Your task to perform on an android device: set the timer Image 0: 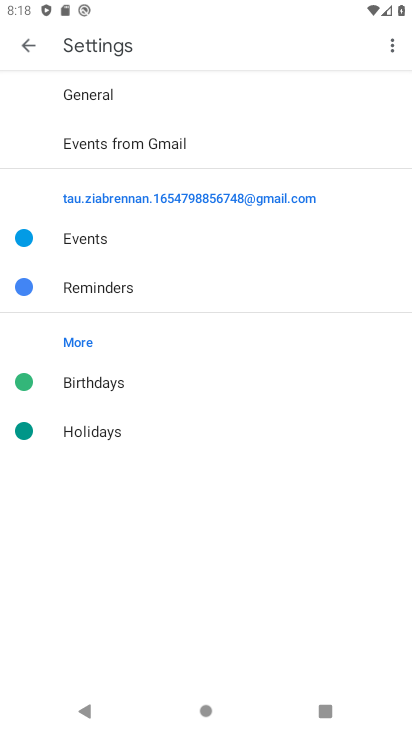
Step 0: press home button
Your task to perform on an android device: set the timer Image 1: 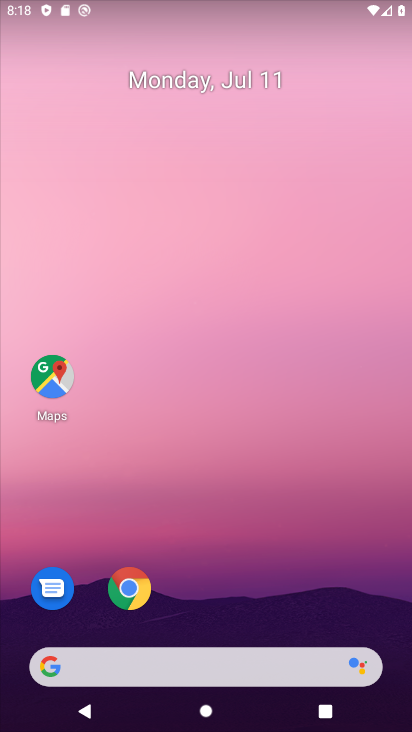
Step 1: drag from (263, 692) to (403, 119)
Your task to perform on an android device: set the timer Image 2: 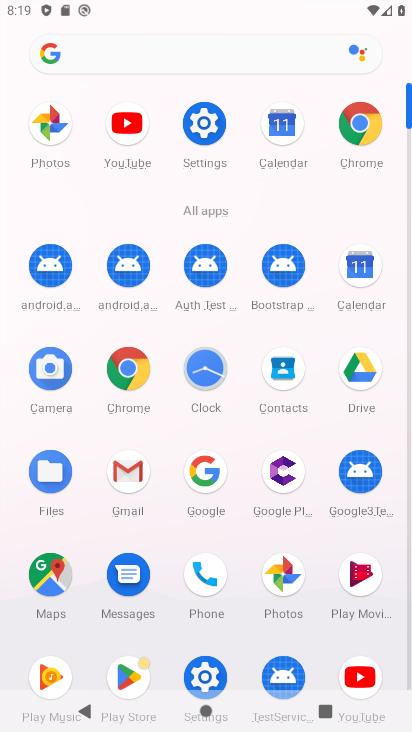
Step 2: click (207, 372)
Your task to perform on an android device: set the timer Image 3: 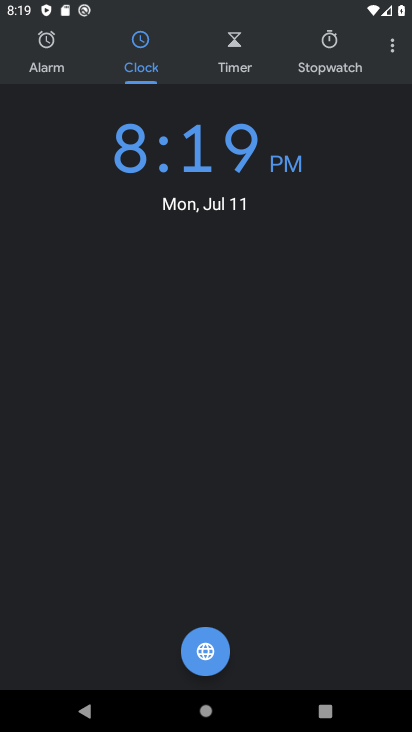
Step 3: click (234, 56)
Your task to perform on an android device: set the timer Image 4: 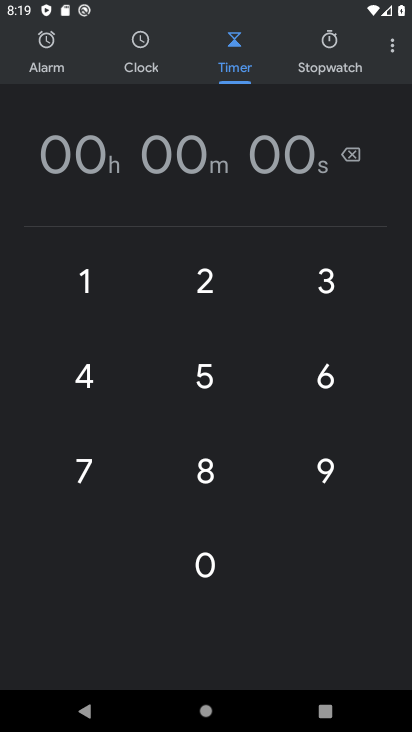
Step 4: click (204, 380)
Your task to perform on an android device: set the timer Image 5: 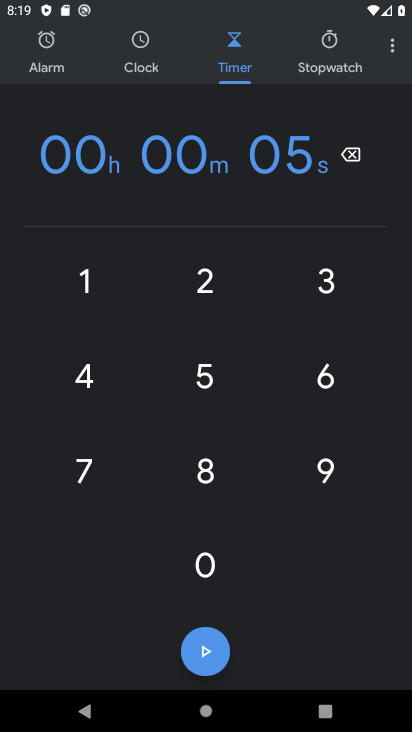
Step 5: click (329, 287)
Your task to perform on an android device: set the timer Image 6: 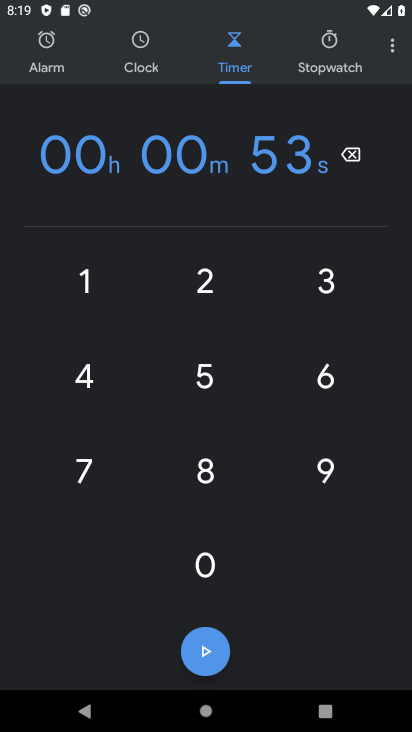
Step 6: click (318, 387)
Your task to perform on an android device: set the timer Image 7: 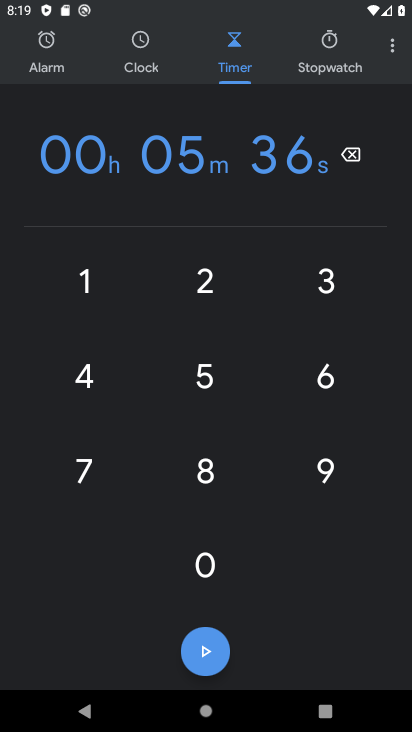
Step 7: click (328, 472)
Your task to perform on an android device: set the timer Image 8: 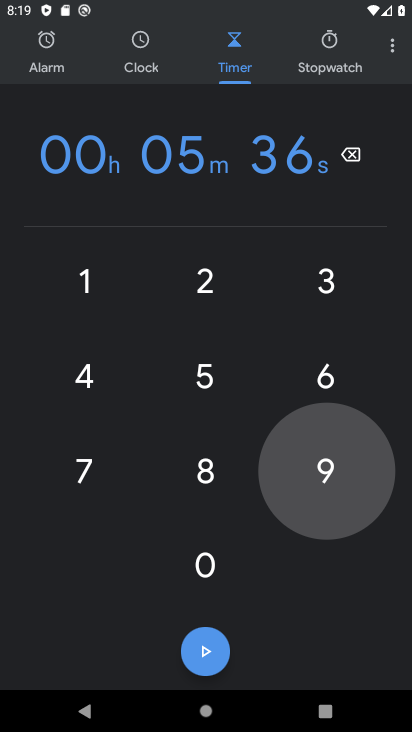
Step 8: click (76, 469)
Your task to perform on an android device: set the timer Image 9: 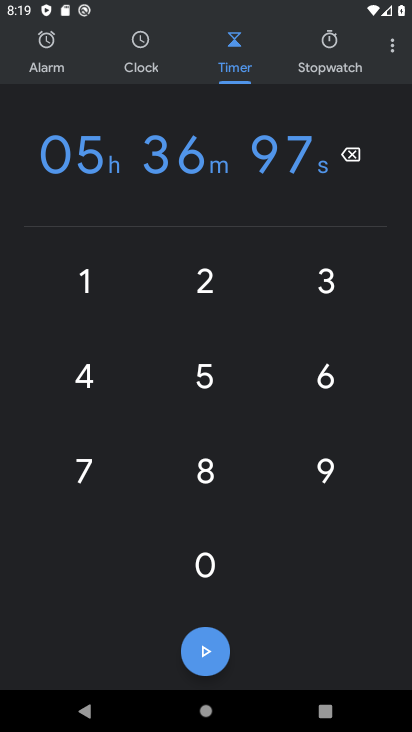
Step 9: task complete